Your task to perform on an android device: set default search engine in the chrome app Image 0: 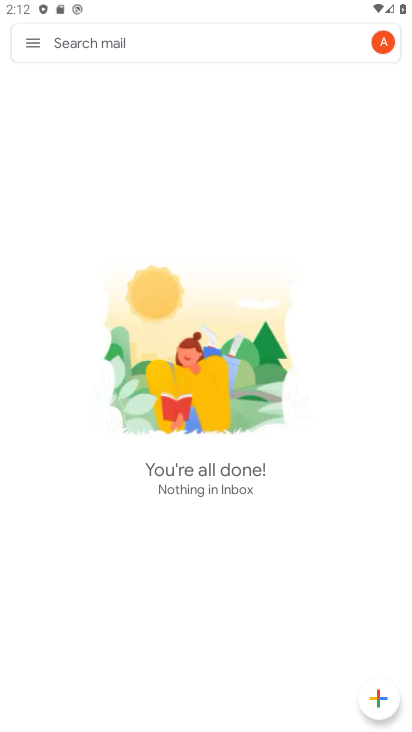
Step 0: press home button
Your task to perform on an android device: set default search engine in the chrome app Image 1: 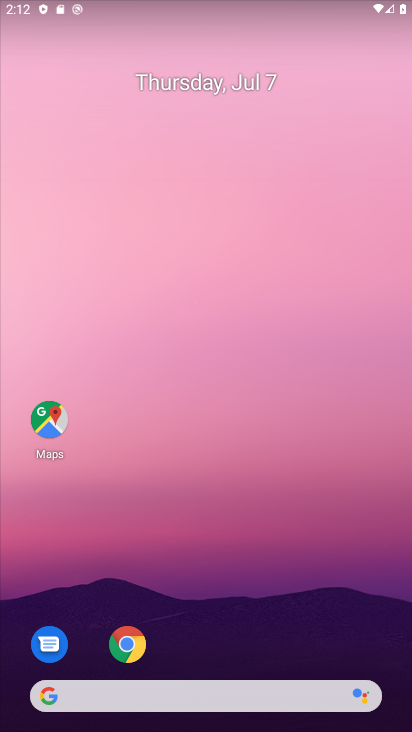
Step 1: drag from (326, 578) to (238, 132)
Your task to perform on an android device: set default search engine in the chrome app Image 2: 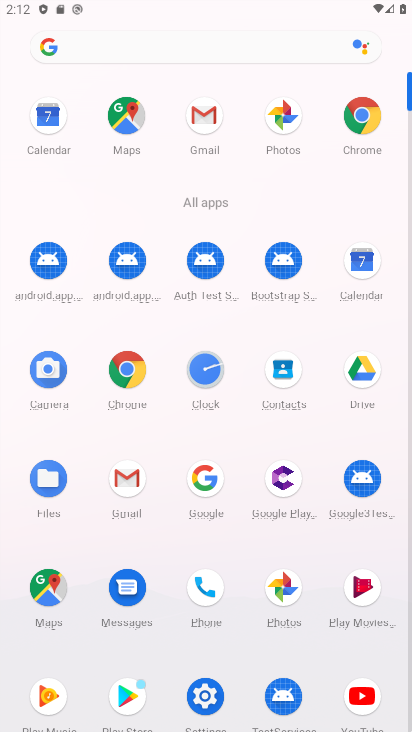
Step 2: click (359, 120)
Your task to perform on an android device: set default search engine in the chrome app Image 3: 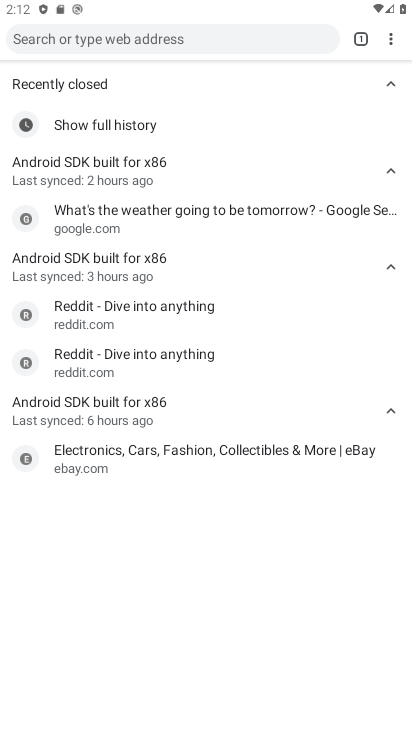
Step 3: click (390, 43)
Your task to perform on an android device: set default search engine in the chrome app Image 4: 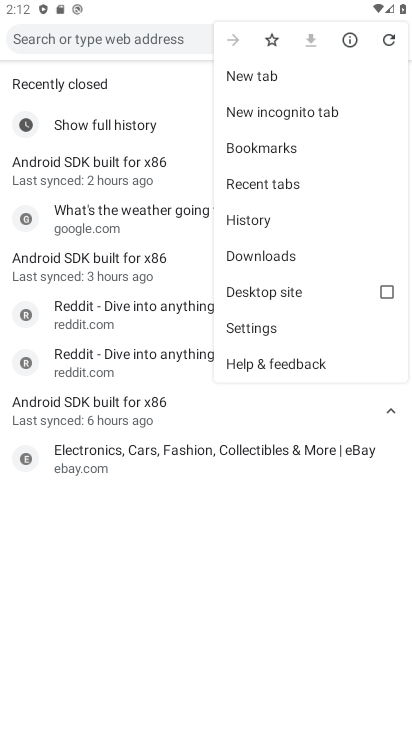
Step 4: click (300, 328)
Your task to perform on an android device: set default search engine in the chrome app Image 5: 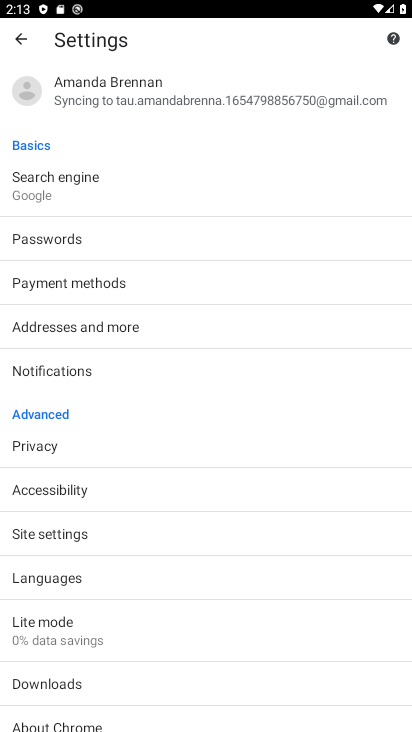
Step 5: click (194, 173)
Your task to perform on an android device: set default search engine in the chrome app Image 6: 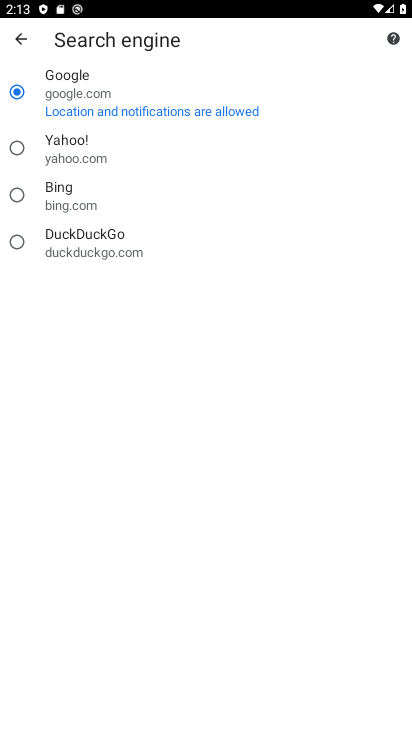
Step 6: click (137, 138)
Your task to perform on an android device: set default search engine in the chrome app Image 7: 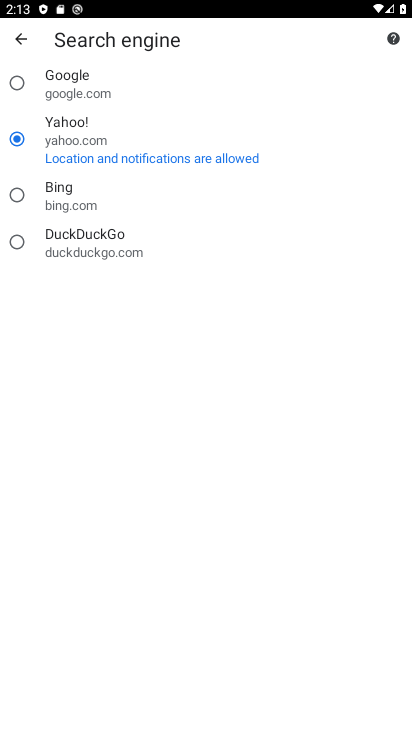
Step 7: task complete